Your task to perform on an android device: delete browsing data in the chrome app Image 0: 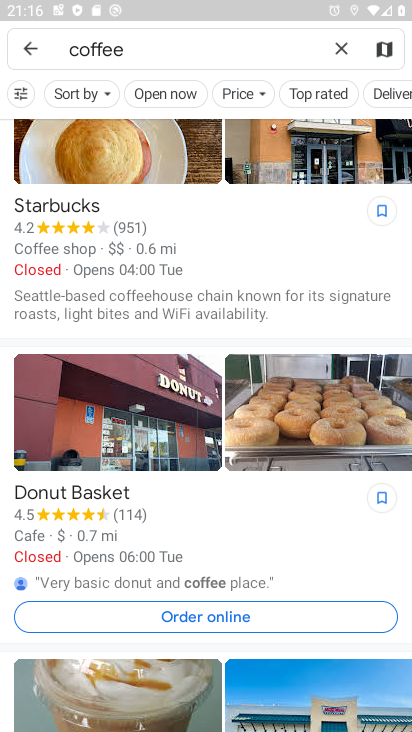
Step 0: press home button
Your task to perform on an android device: delete browsing data in the chrome app Image 1: 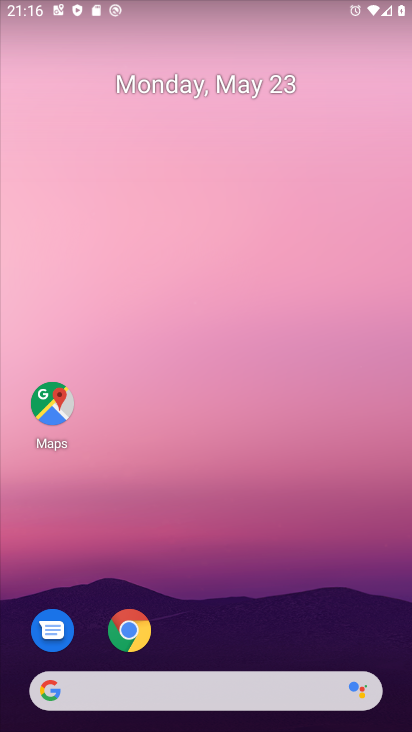
Step 1: click (131, 637)
Your task to perform on an android device: delete browsing data in the chrome app Image 2: 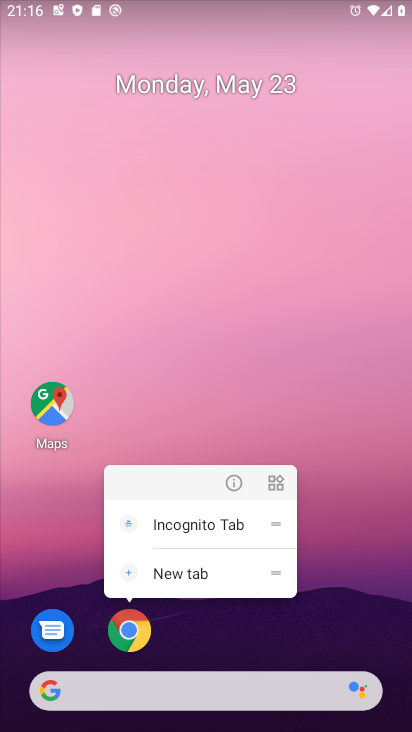
Step 2: click (130, 635)
Your task to perform on an android device: delete browsing data in the chrome app Image 3: 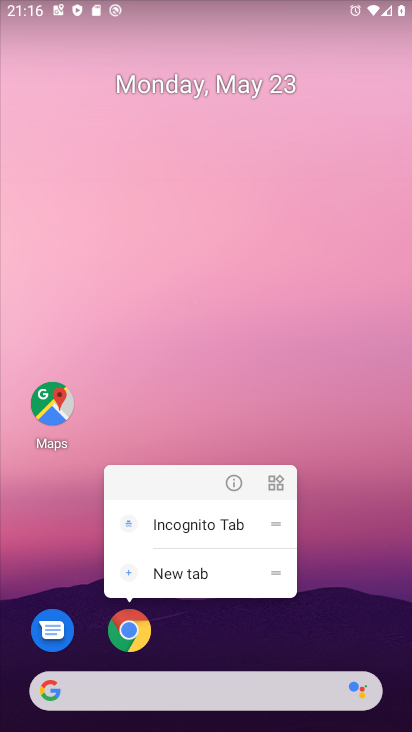
Step 3: click (123, 633)
Your task to perform on an android device: delete browsing data in the chrome app Image 4: 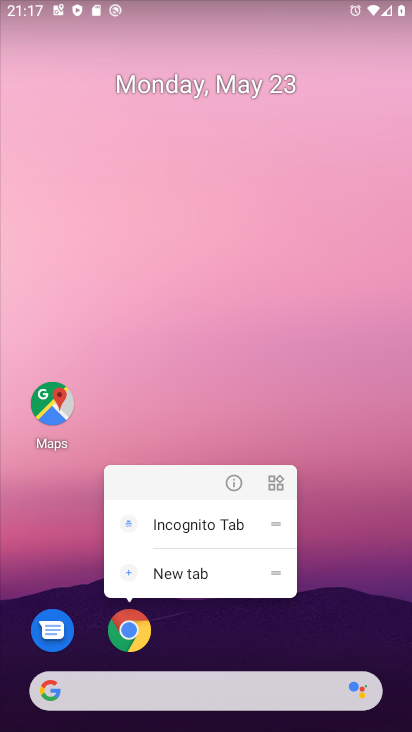
Step 4: click (130, 635)
Your task to perform on an android device: delete browsing data in the chrome app Image 5: 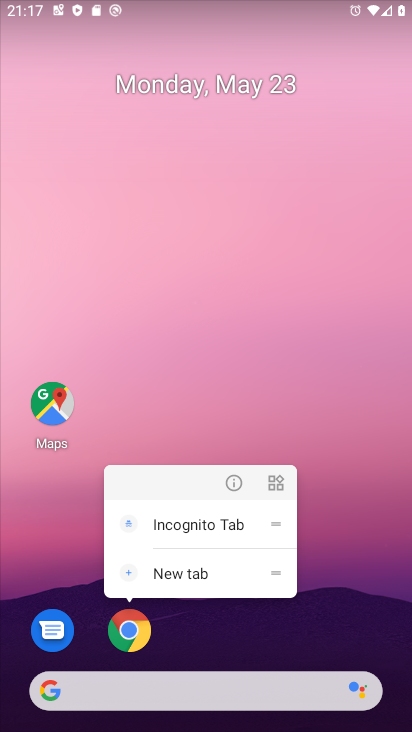
Step 5: click (134, 642)
Your task to perform on an android device: delete browsing data in the chrome app Image 6: 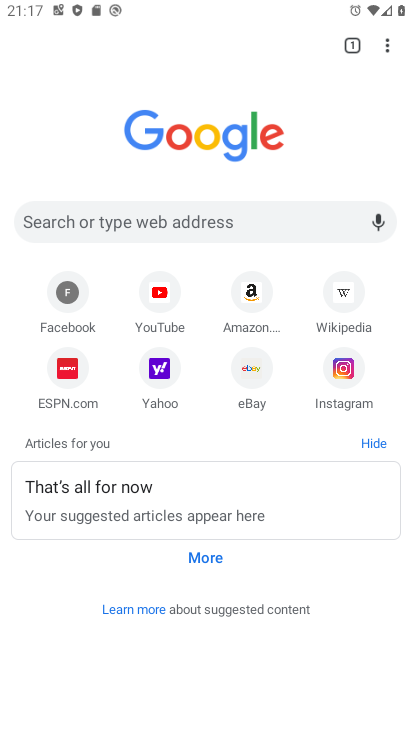
Step 6: click (381, 47)
Your task to perform on an android device: delete browsing data in the chrome app Image 7: 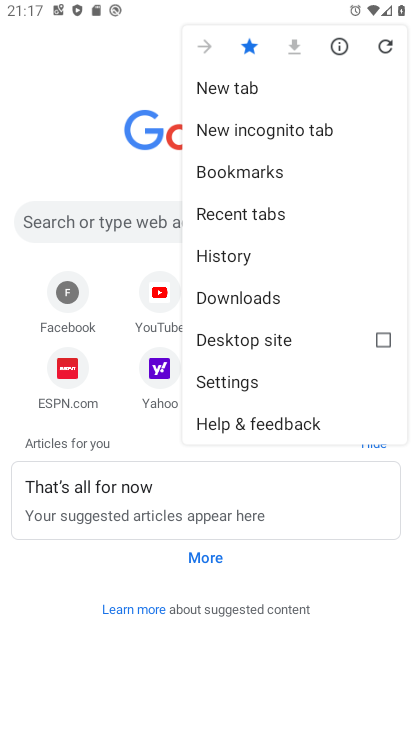
Step 7: click (232, 253)
Your task to perform on an android device: delete browsing data in the chrome app Image 8: 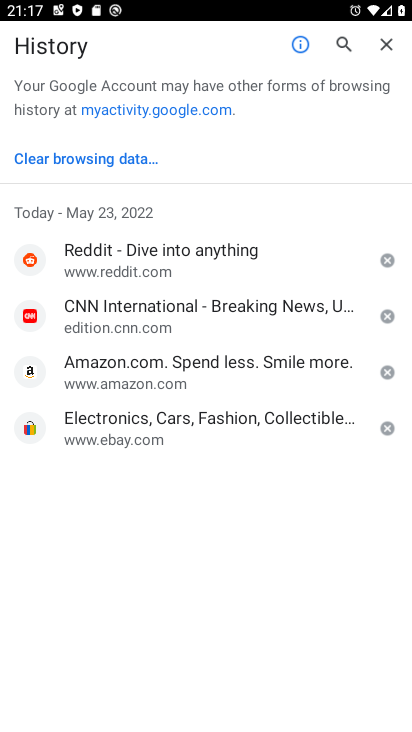
Step 8: click (121, 155)
Your task to perform on an android device: delete browsing data in the chrome app Image 9: 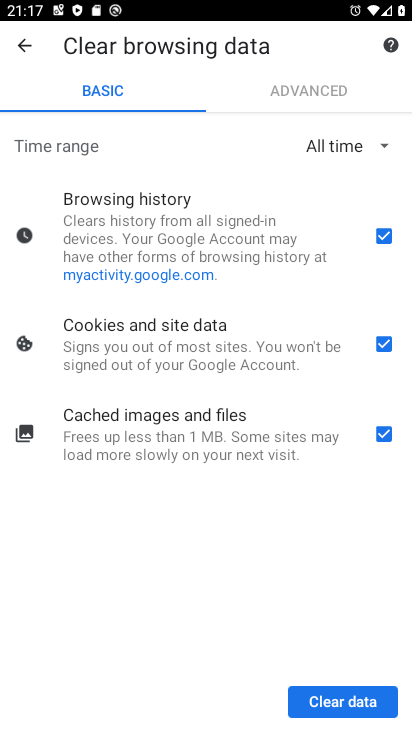
Step 9: click (323, 702)
Your task to perform on an android device: delete browsing data in the chrome app Image 10: 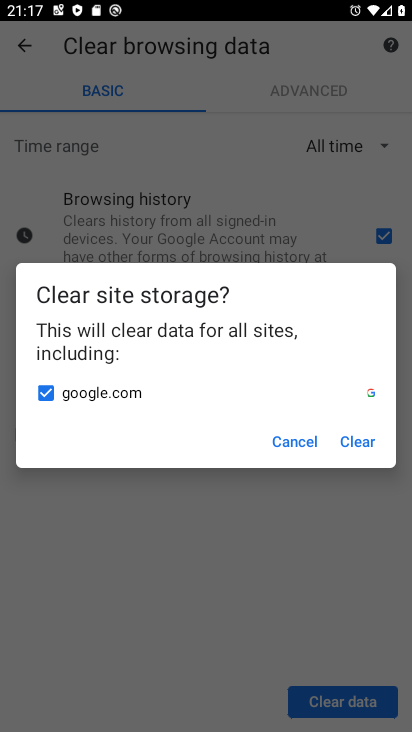
Step 10: click (360, 445)
Your task to perform on an android device: delete browsing data in the chrome app Image 11: 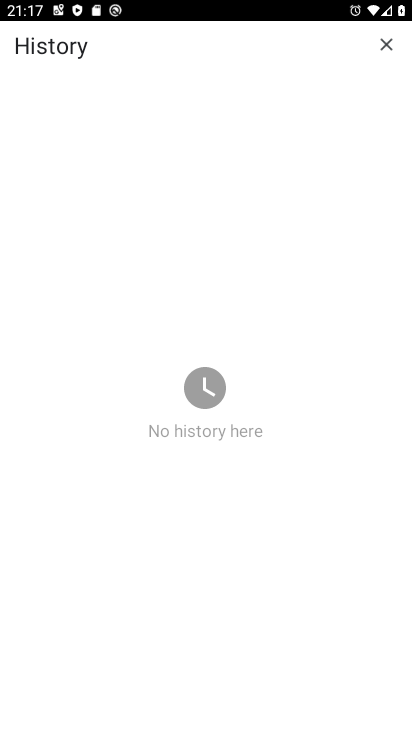
Step 11: task complete